Your task to perform on an android device: turn on javascript in the chrome app Image 0: 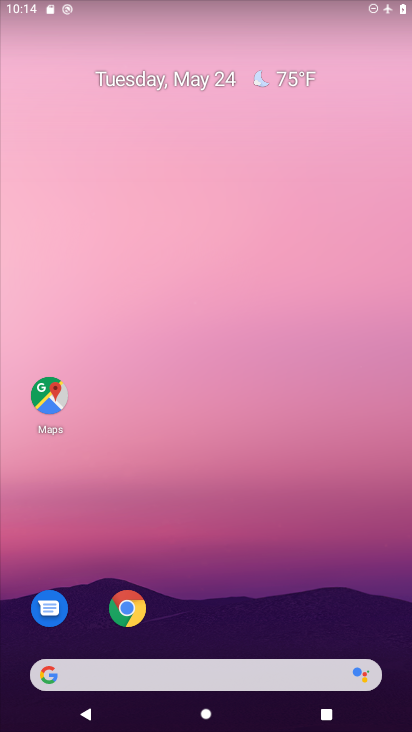
Step 0: click (130, 620)
Your task to perform on an android device: turn on javascript in the chrome app Image 1: 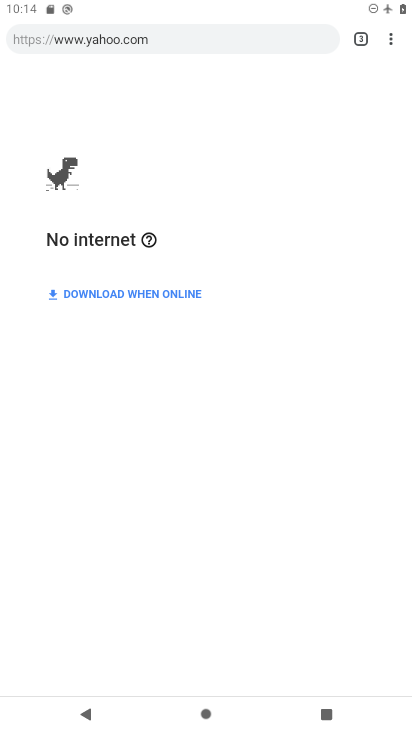
Step 1: task complete